Your task to perform on an android device: Open notification settings Image 0: 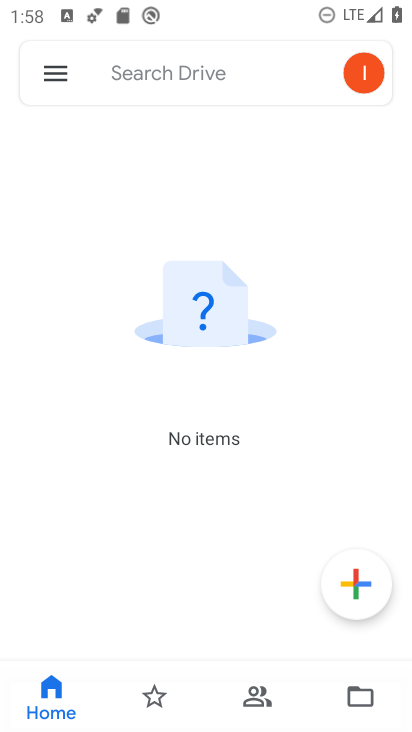
Step 0: press home button
Your task to perform on an android device: Open notification settings Image 1: 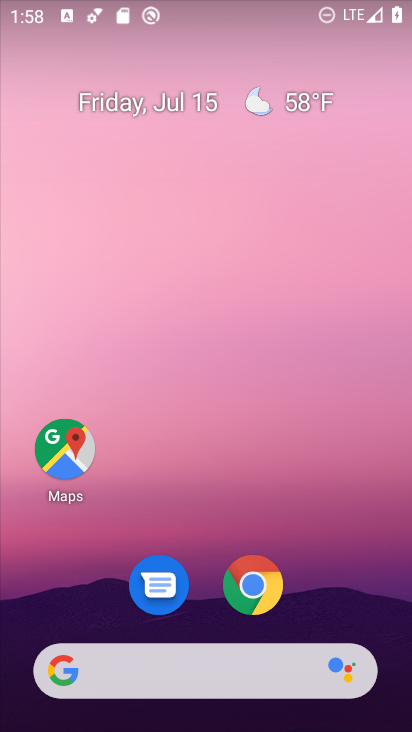
Step 1: drag from (206, 506) to (236, 0)
Your task to perform on an android device: Open notification settings Image 2: 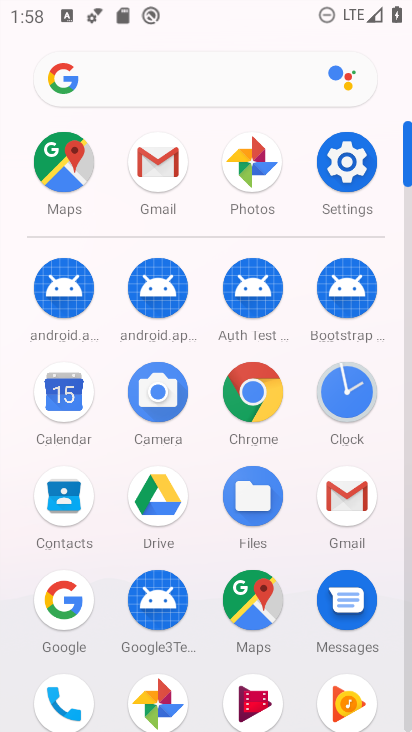
Step 2: click (345, 153)
Your task to perform on an android device: Open notification settings Image 3: 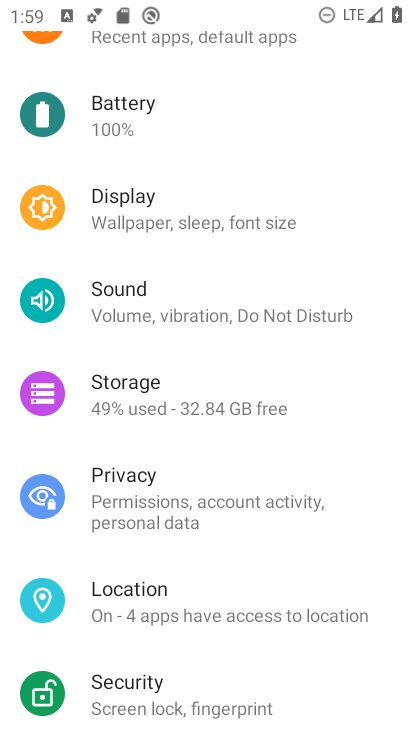
Step 3: drag from (194, 182) to (273, 481)
Your task to perform on an android device: Open notification settings Image 4: 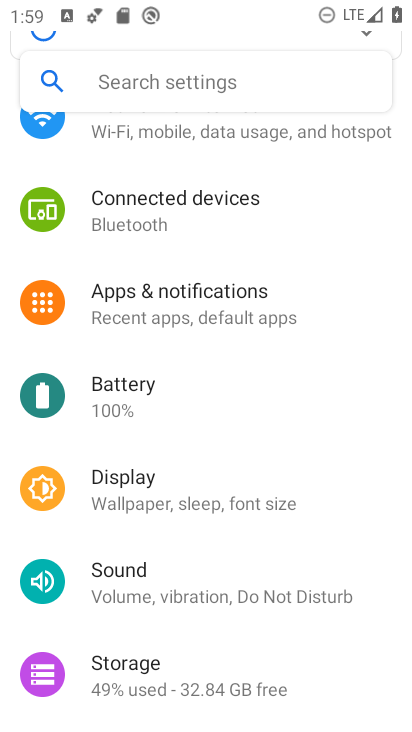
Step 4: click (222, 281)
Your task to perform on an android device: Open notification settings Image 5: 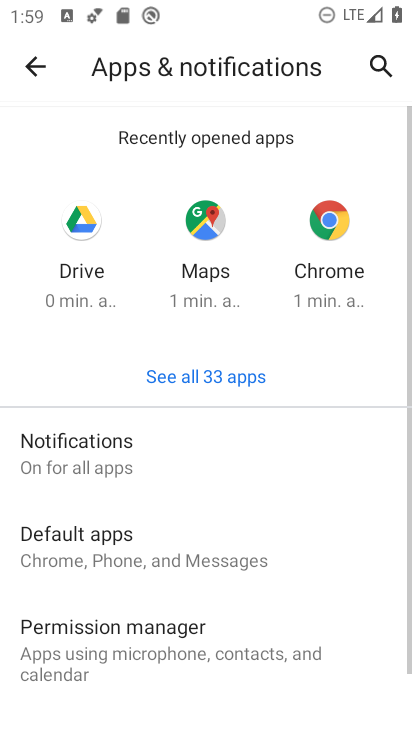
Step 5: click (103, 432)
Your task to perform on an android device: Open notification settings Image 6: 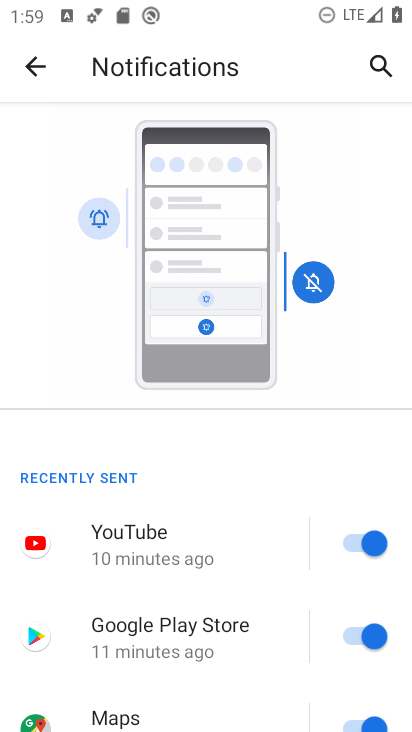
Step 6: task complete